Your task to perform on an android device: What's the weather? Image 0: 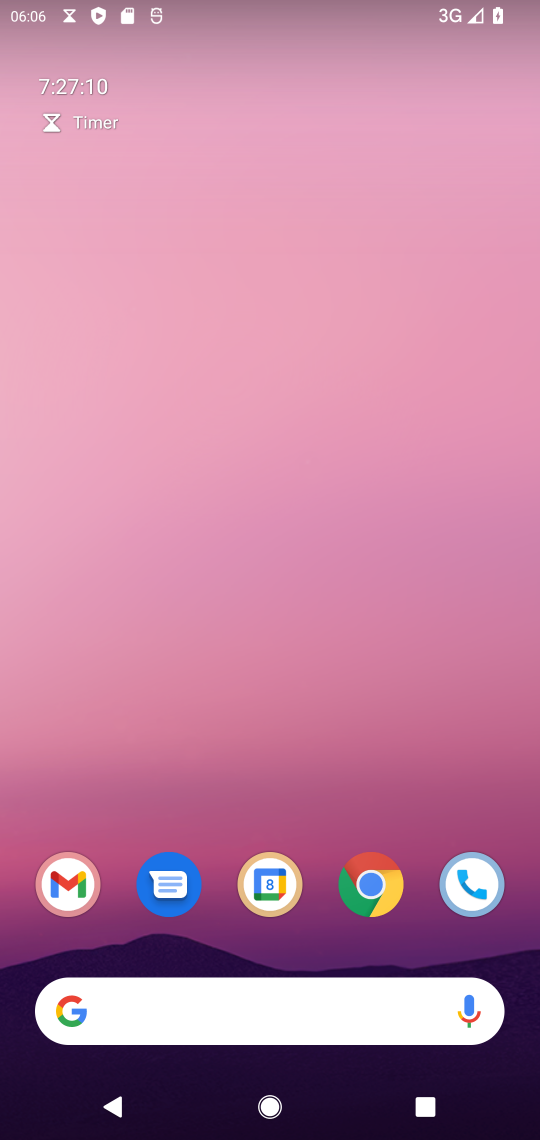
Step 0: drag from (325, 779) to (273, 188)
Your task to perform on an android device: What's the weather? Image 1: 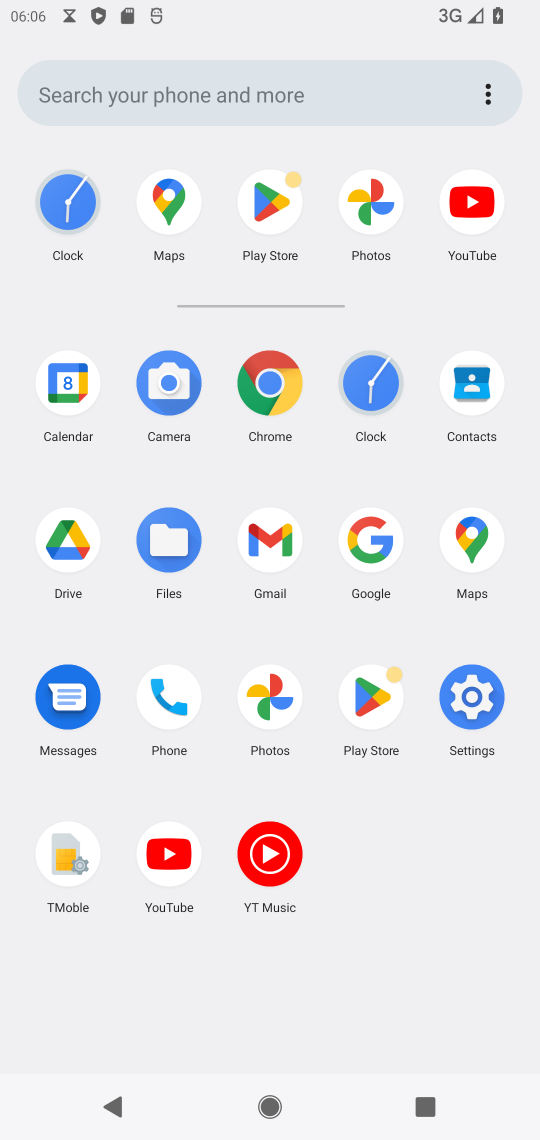
Step 1: click (279, 396)
Your task to perform on an android device: What's the weather? Image 2: 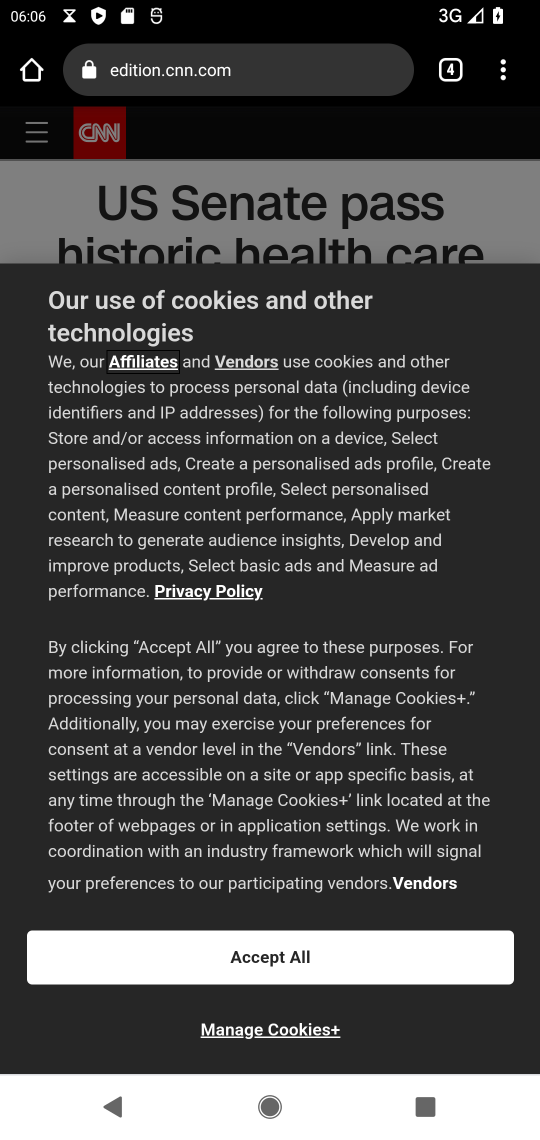
Step 2: click (255, 89)
Your task to perform on an android device: What's the weather? Image 3: 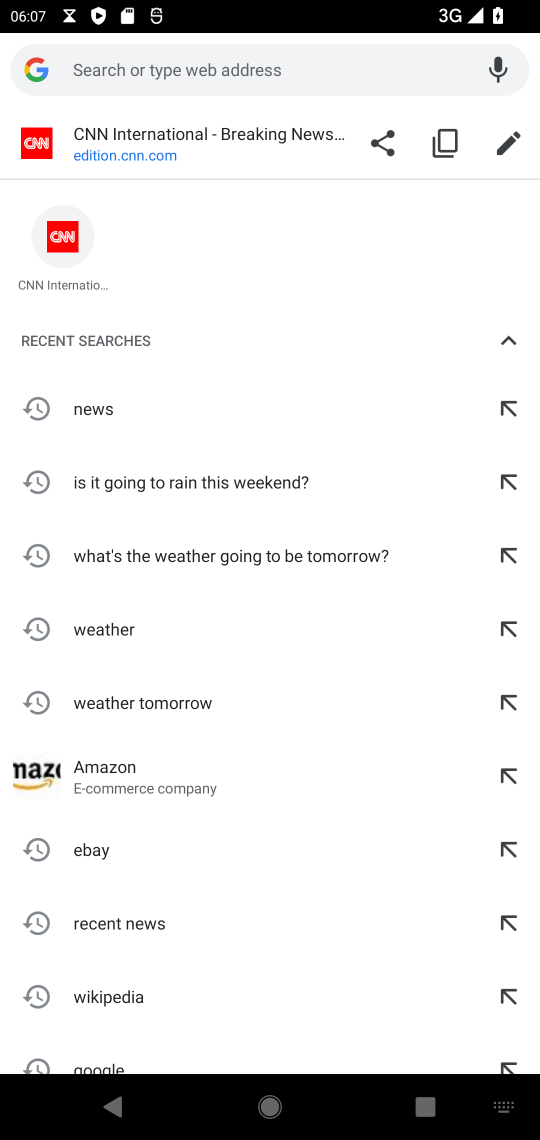
Step 3: type "w"
Your task to perform on an android device: What's the weather? Image 4: 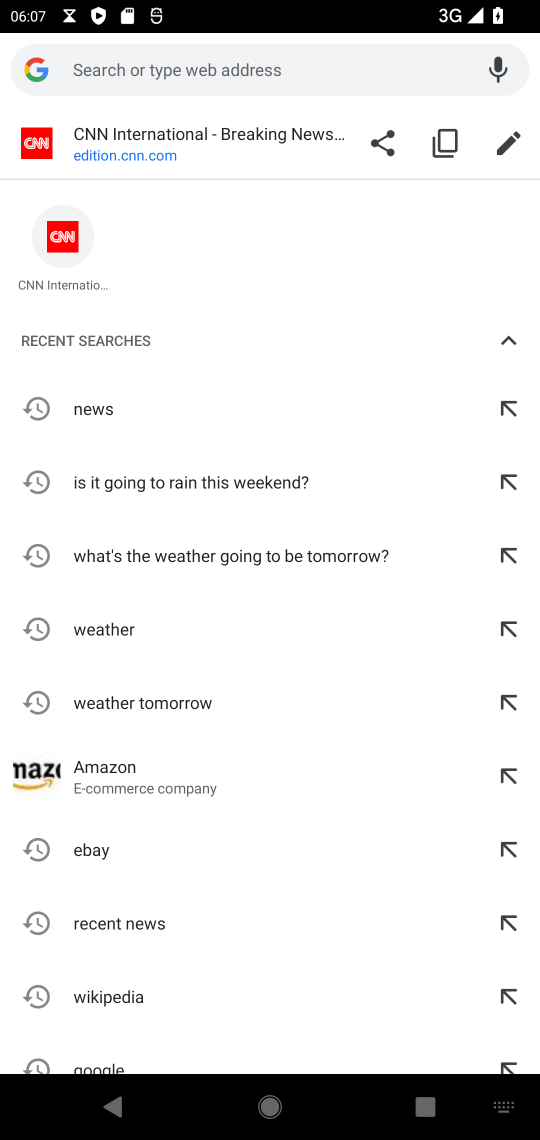
Step 4: click (252, 623)
Your task to perform on an android device: What's the weather? Image 5: 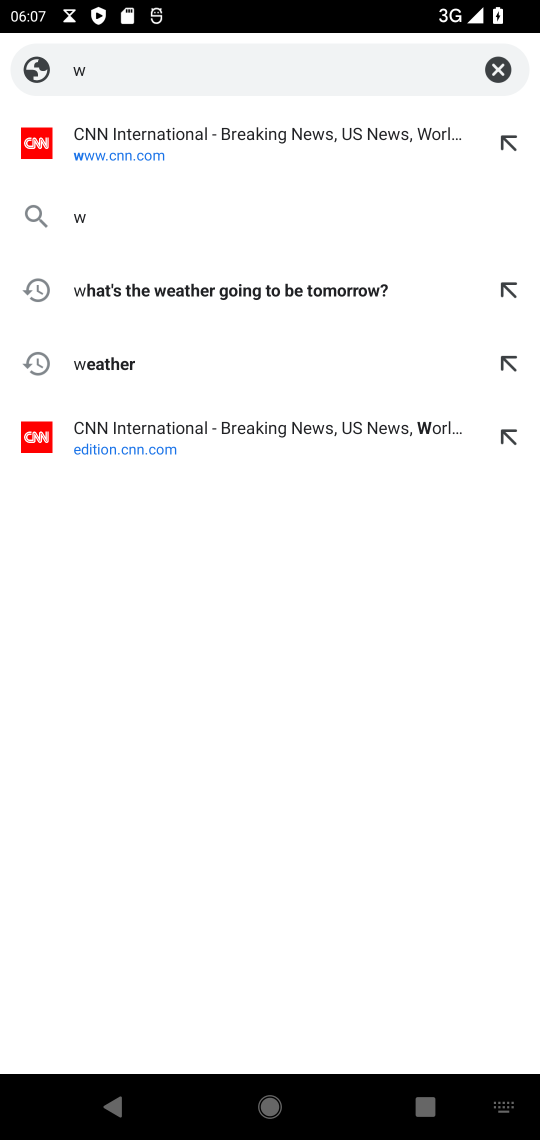
Step 5: click (132, 360)
Your task to perform on an android device: What's the weather? Image 6: 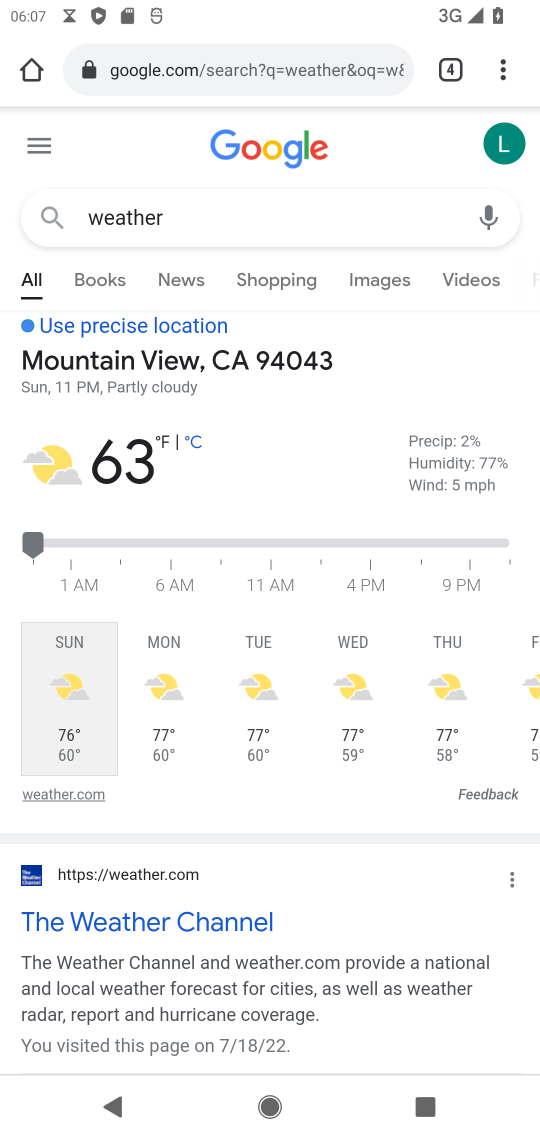
Step 6: task complete